Your task to perform on an android device: Go to accessibility settings Image 0: 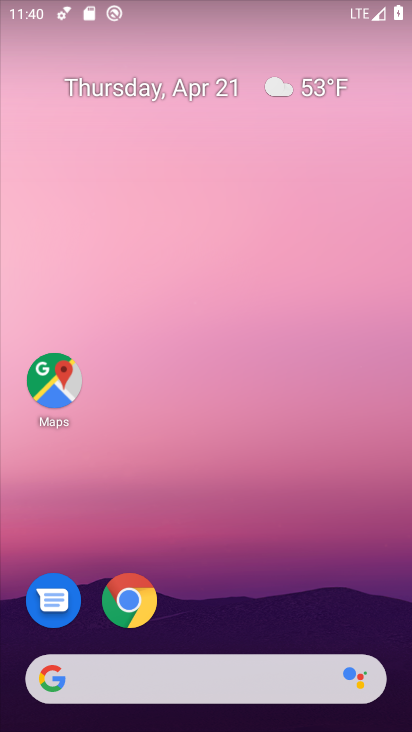
Step 0: drag from (250, 391) to (212, 42)
Your task to perform on an android device: Go to accessibility settings Image 1: 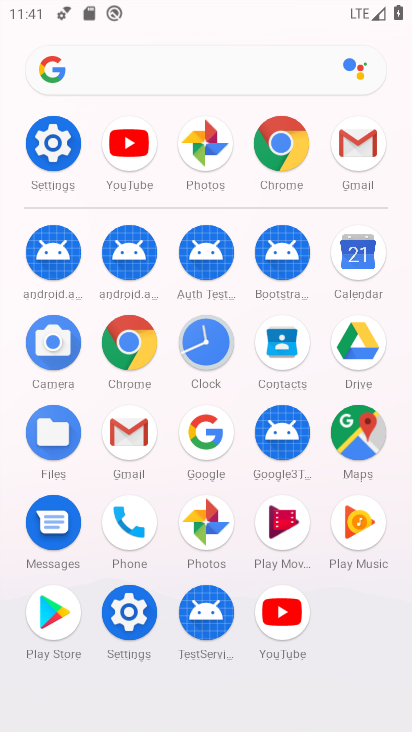
Step 1: click (64, 155)
Your task to perform on an android device: Go to accessibility settings Image 2: 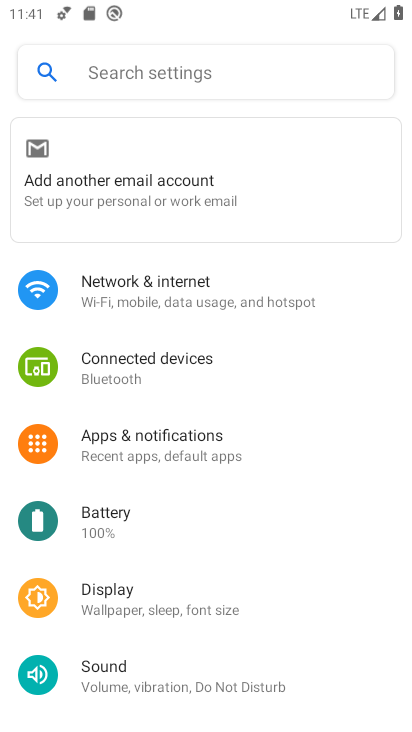
Step 2: drag from (223, 563) to (237, 193)
Your task to perform on an android device: Go to accessibility settings Image 3: 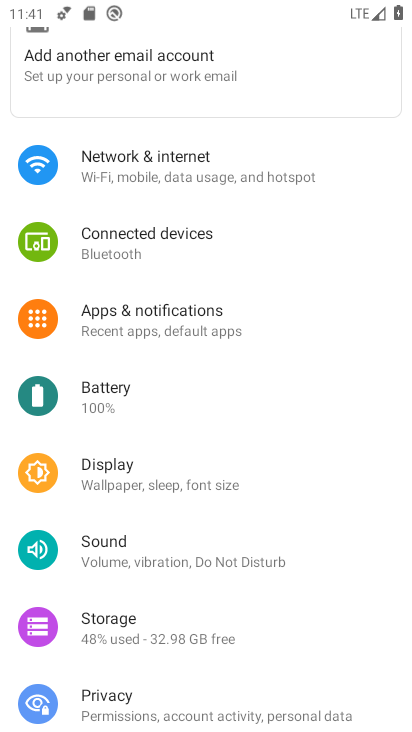
Step 3: drag from (230, 604) to (239, 234)
Your task to perform on an android device: Go to accessibility settings Image 4: 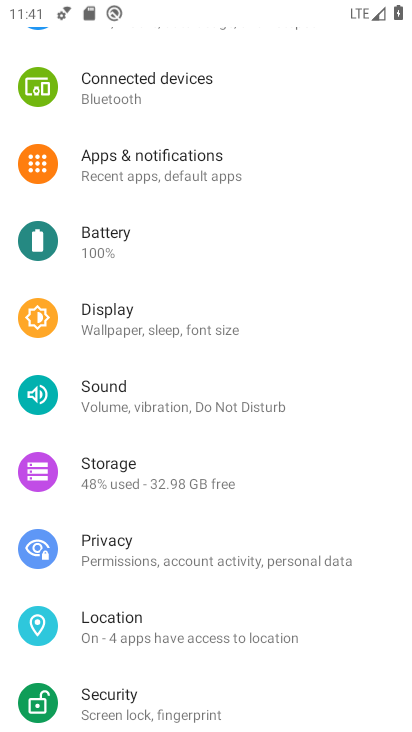
Step 4: drag from (243, 580) to (232, 209)
Your task to perform on an android device: Go to accessibility settings Image 5: 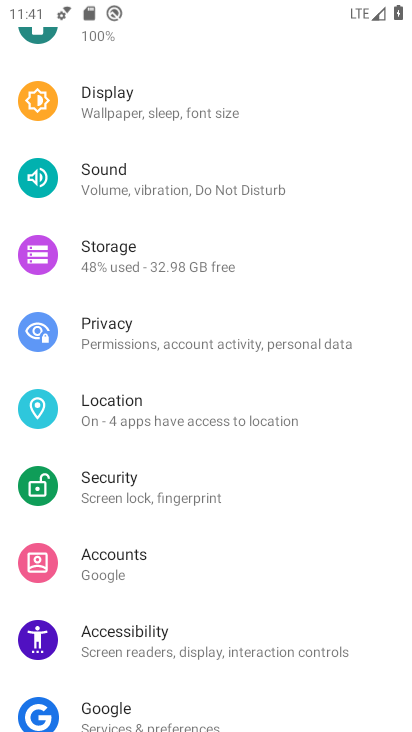
Step 5: click (206, 634)
Your task to perform on an android device: Go to accessibility settings Image 6: 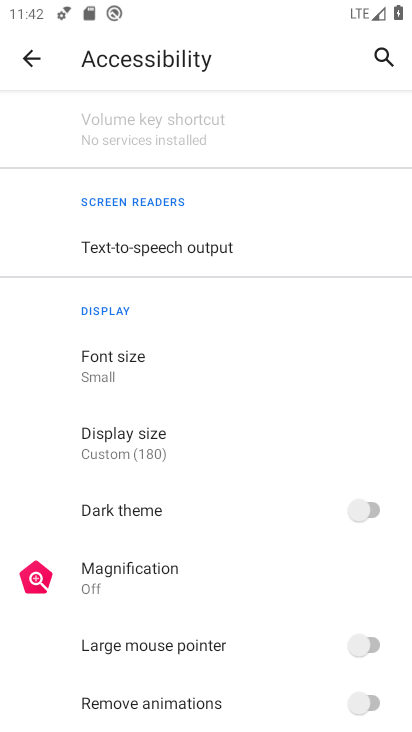
Step 6: task complete